Your task to perform on an android device: Search for sushi restaurants on Maps Image 0: 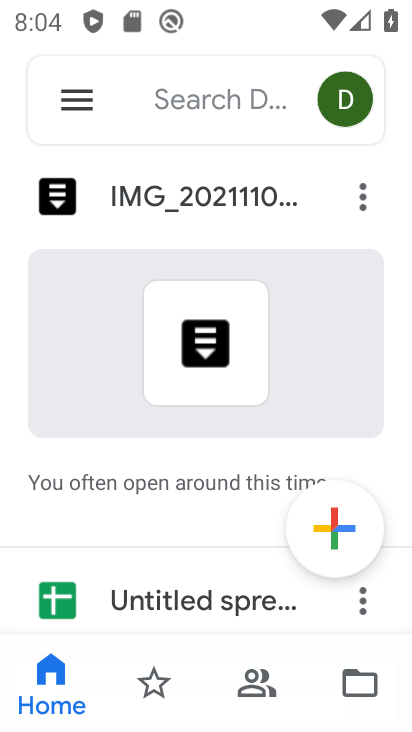
Step 0: press home button
Your task to perform on an android device: Search for sushi restaurants on Maps Image 1: 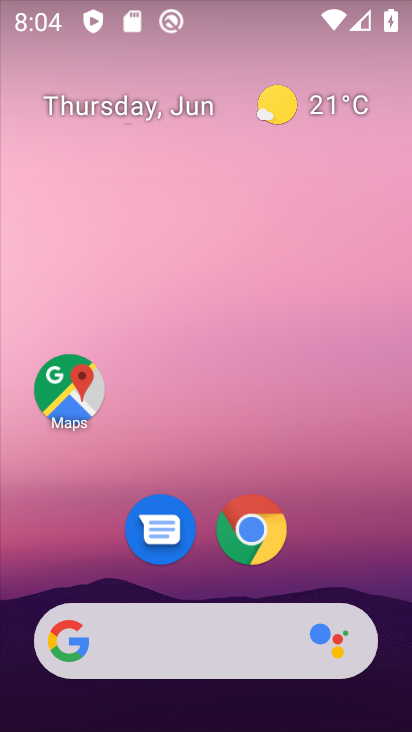
Step 1: click (63, 382)
Your task to perform on an android device: Search for sushi restaurants on Maps Image 2: 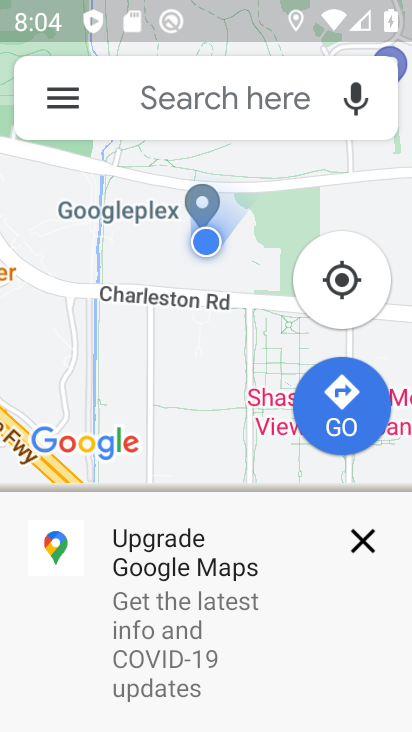
Step 2: click (272, 101)
Your task to perform on an android device: Search for sushi restaurants on Maps Image 3: 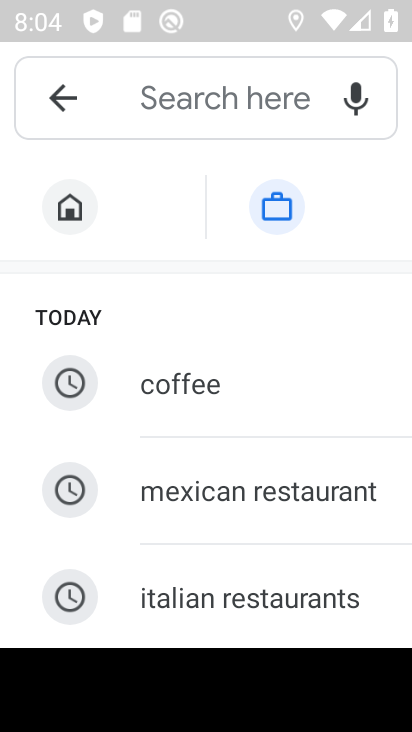
Step 3: type " sushi restaurants"
Your task to perform on an android device: Search for sushi restaurants on Maps Image 4: 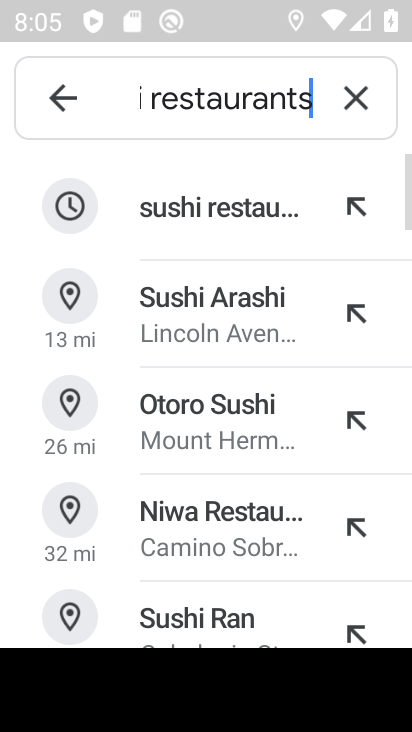
Step 4: click (163, 210)
Your task to perform on an android device: Search for sushi restaurants on Maps Image 5: 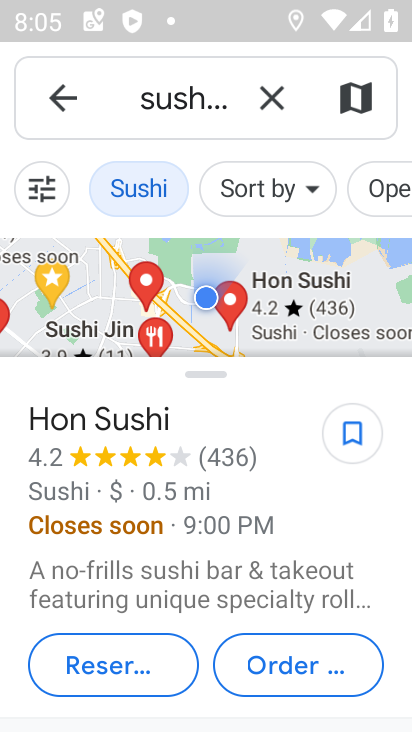
Step 5: task complete